Your task to perform on an android device: create a new album in the google photos Image 0: 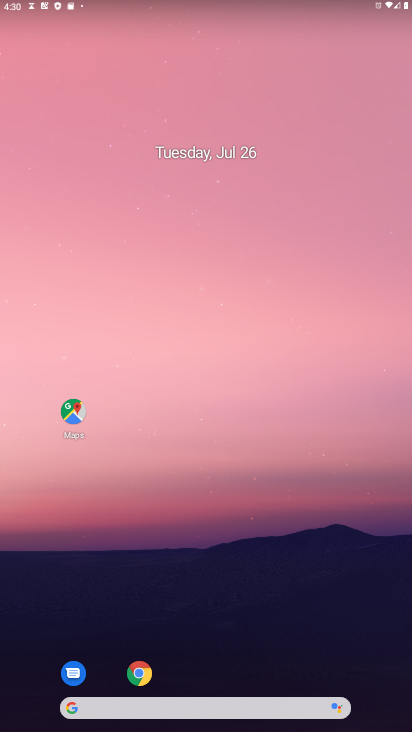
Step 0: drag from (181, 705) to (257, 103)
Your task to perform on an android device: create a new album in the google photos Image 1: 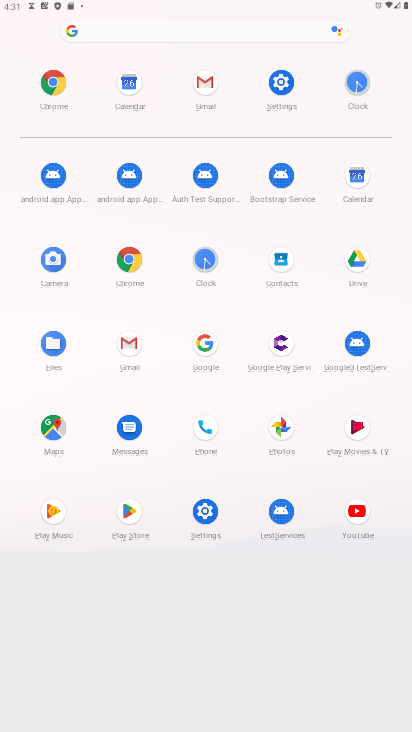
Step 1: click (279, 426)
Your task to perform on an android device: create a new album in the google photos Image 2: 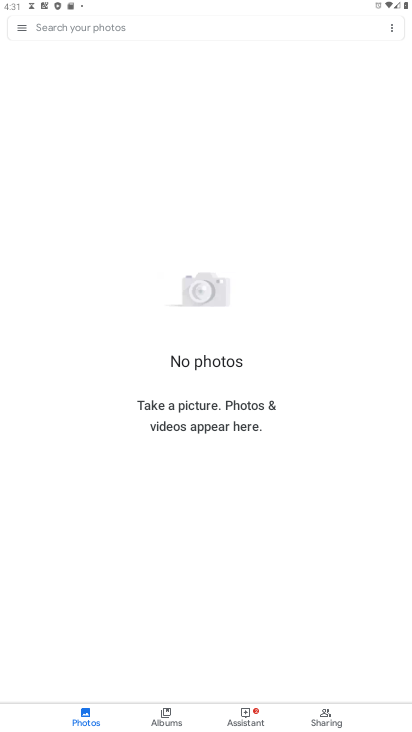
Step 2: press back button
Your task to perform on an android device: create a new album in the google photos Image 3: 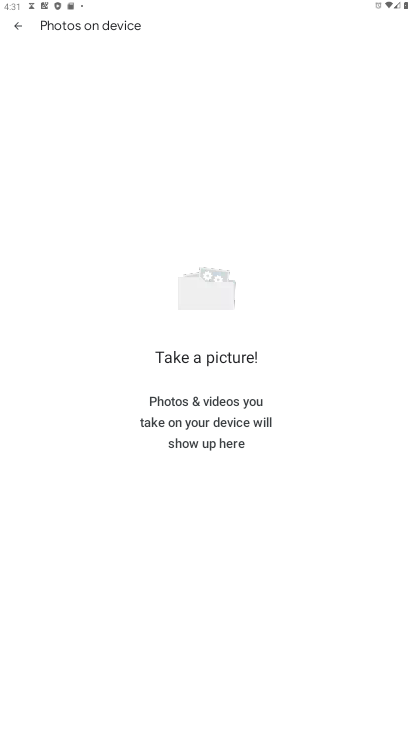
Step 3: press back button
Your task to perform on an android device: create a new album in the google photos Image 4: 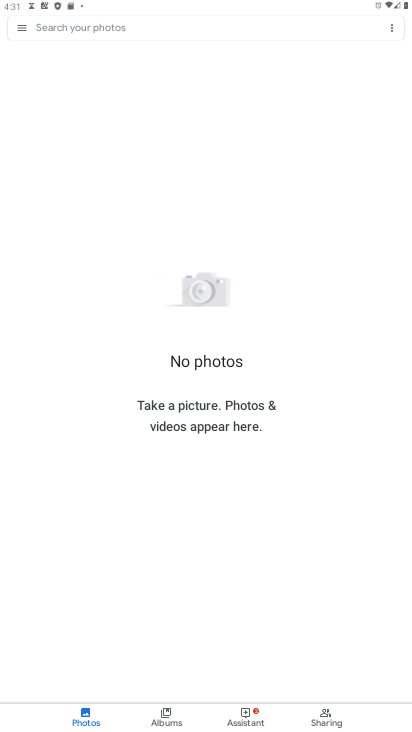
Step 4: press back button
Your task to perform on an android device: create a new album in the google photos Image 5: 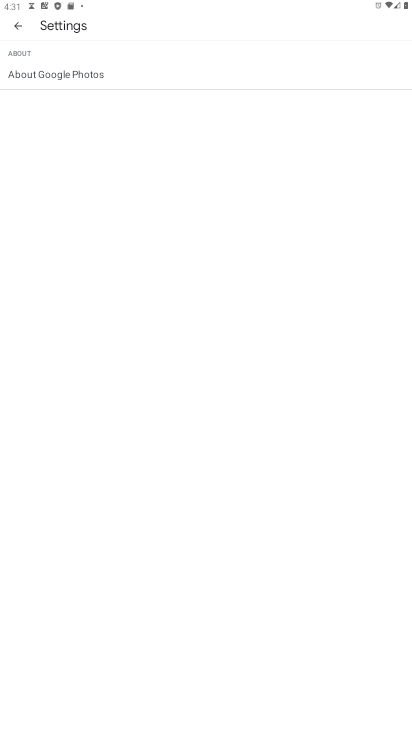
Step 5: press back button
Your task to perform on an android device: create a new album in the google photos Image 6: 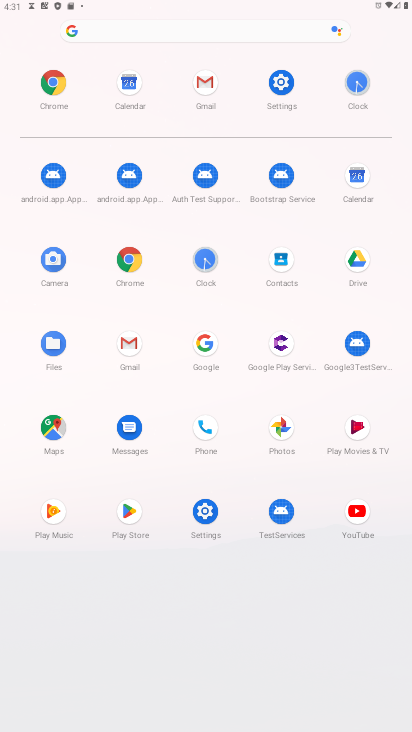
Step 6: click (284, 432)
Your task to perform on an android device: create a new album in the google photos Image 7: 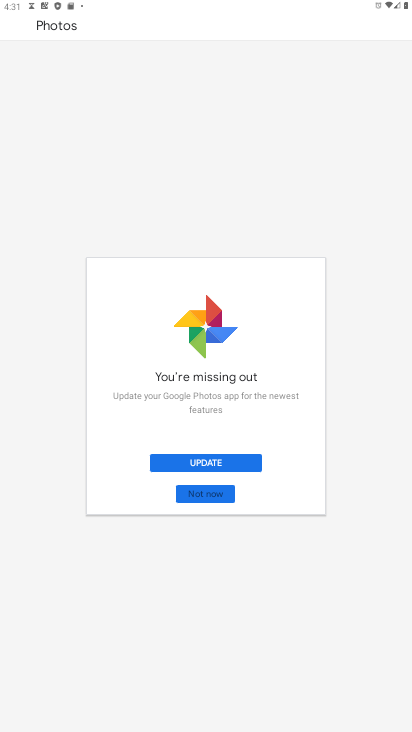
Step 7: click (199, 463)
Your task to perform on an android device: create a new album in the google photos Image 8: 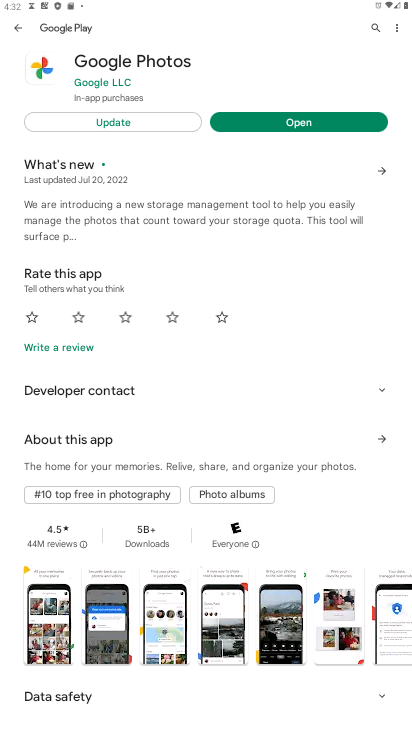
Step 8: task complete